Your task to perform on an android device: Open eBay Image 0: 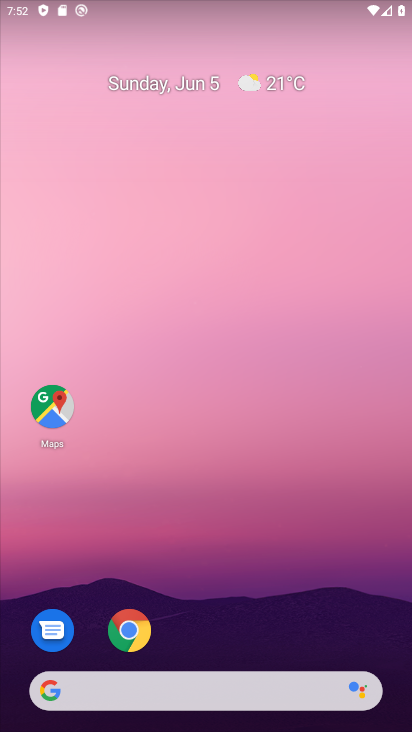
Step 0: drag from (291, 655) to (245, 29)
Your task to perform on an android device: Open eBay Image 1: 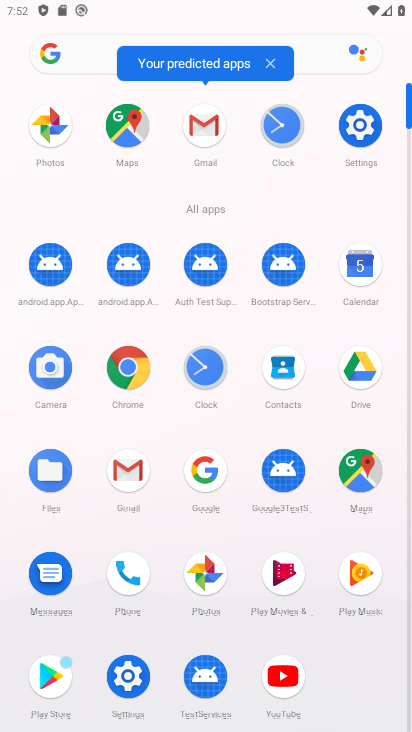
Step 1: drag from (316, 536) to (299, 348)
Your task to perform on an android device: Open eBay Image 2: 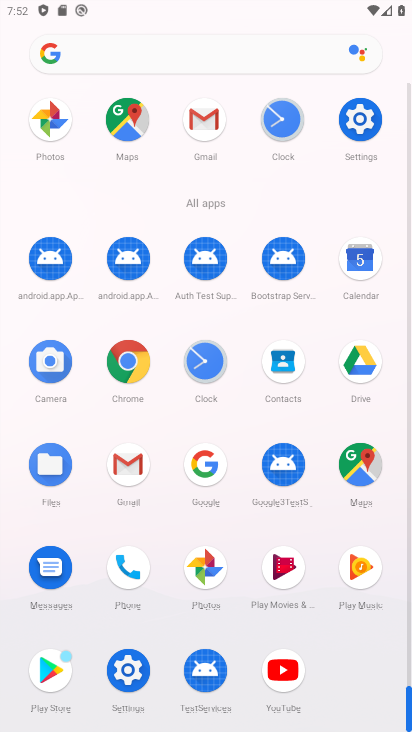
Step 2: click (132, 362)
Your task to perform on an android device: Open eBay Image 3: 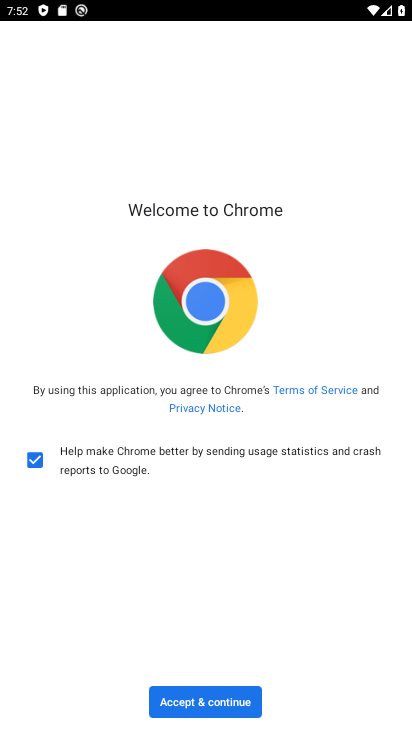
Step 3: click (236, 700)
Your task to perform on an android device: Open eBay Image 4: 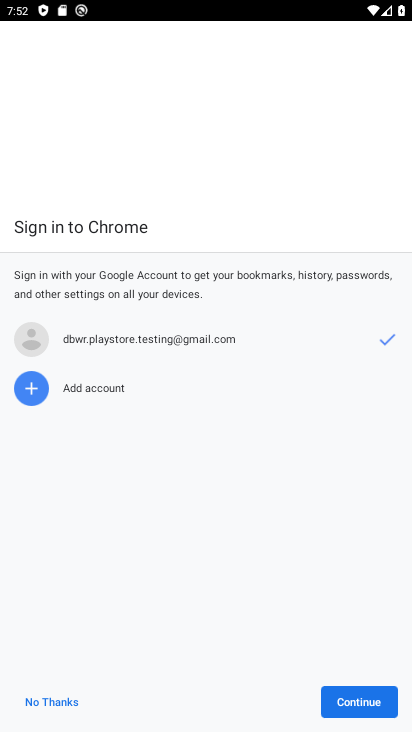
Step 4: click (346, 708)
Your task to perform on an android device: Open eBay Image 5: 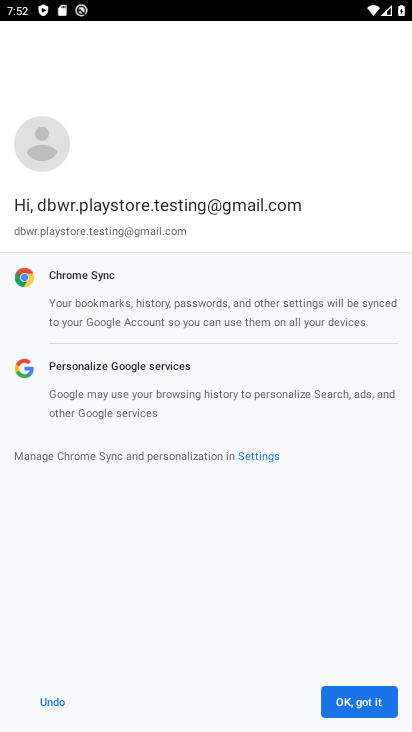
Step 5: click (346, 708)
Your task to perform on an android device: Open eBay Image 6: 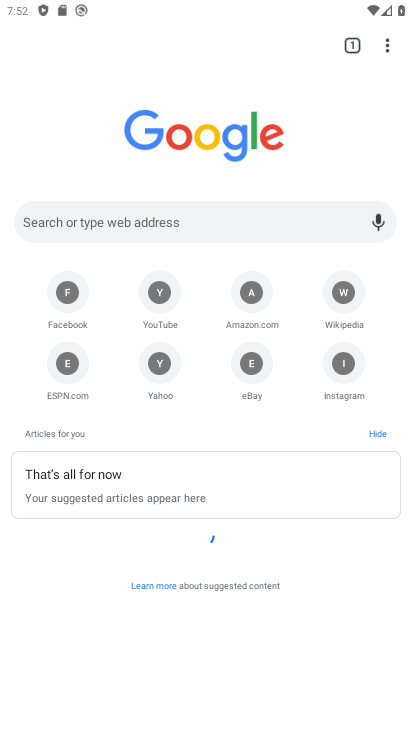
Step 6: click (251, 360)
Your task to perform on an android device: Open eBay Image 7: 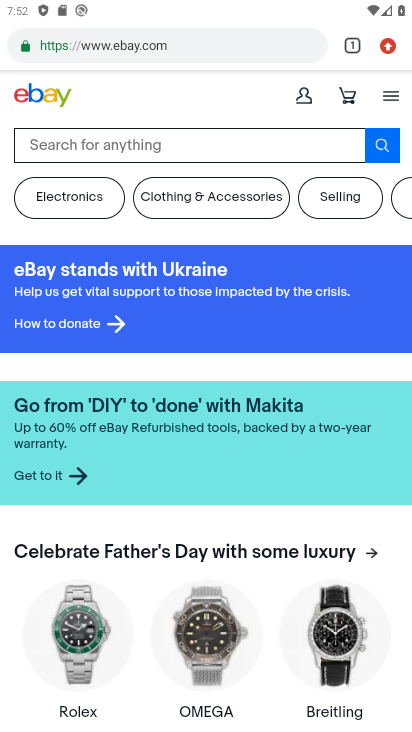
Step 7: task complete